Your task to perform on an android device: uninstall "Facebook" Image 0: 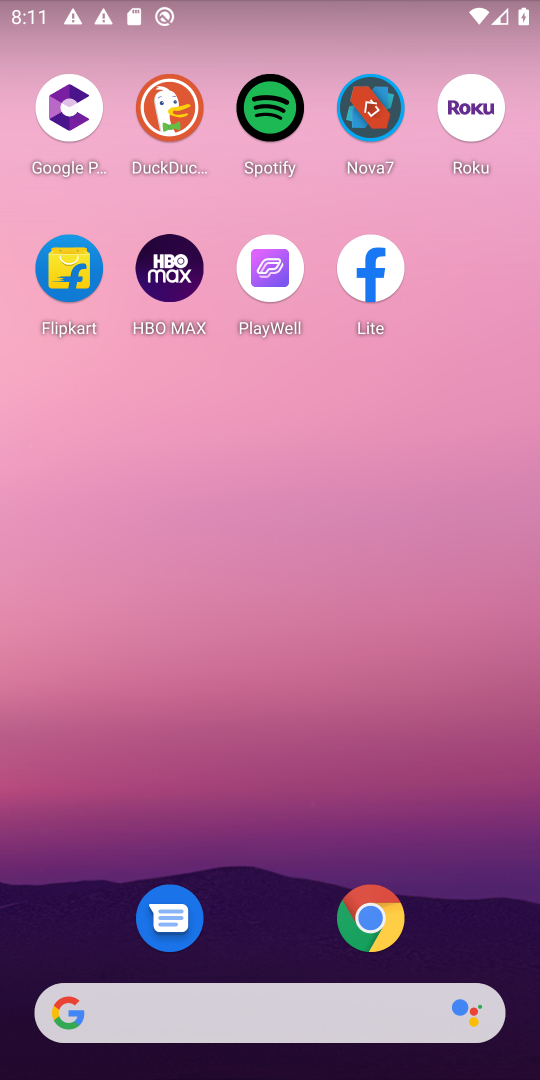
Step 0: press home button
Your task to perform on an android device: uninstall "Facebook" Image 1: 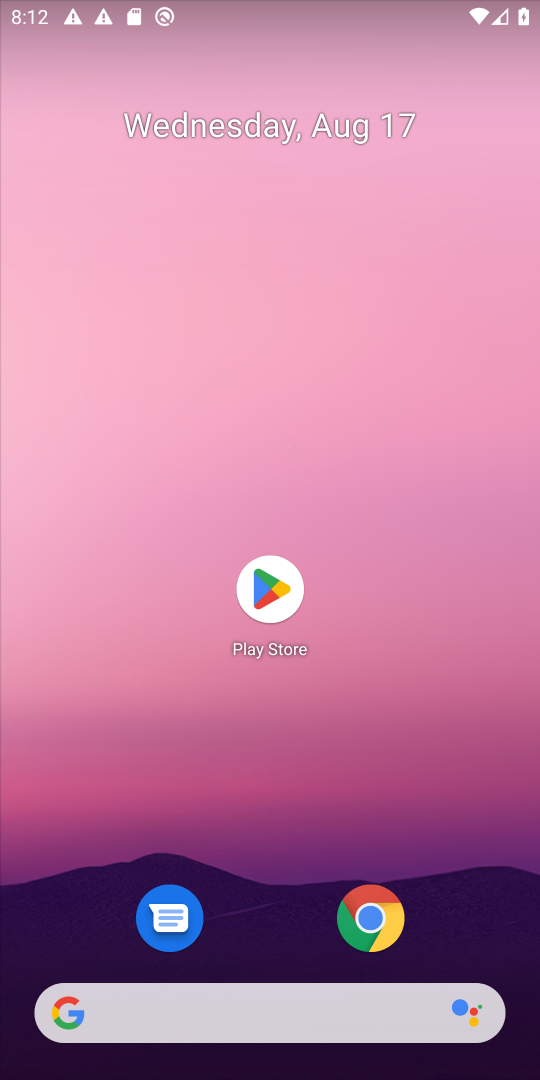
Step 1: click (270, 577)
Your task to perform on an android device: uninstall "Facebook" Image 2: 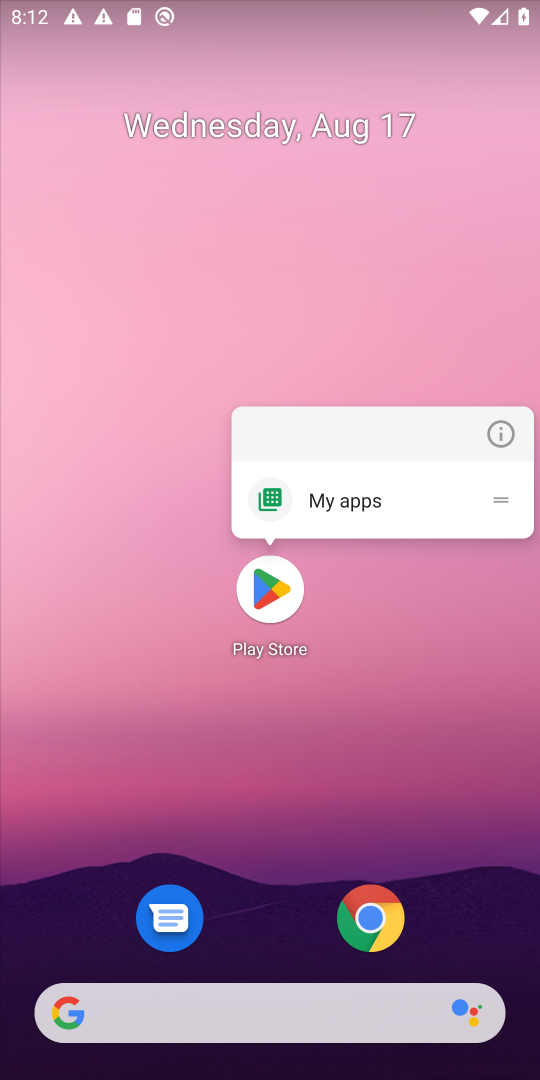
Step 2: click (270, 588)
Your task to perform on an android device: uninstall "Facebook" Image 3: 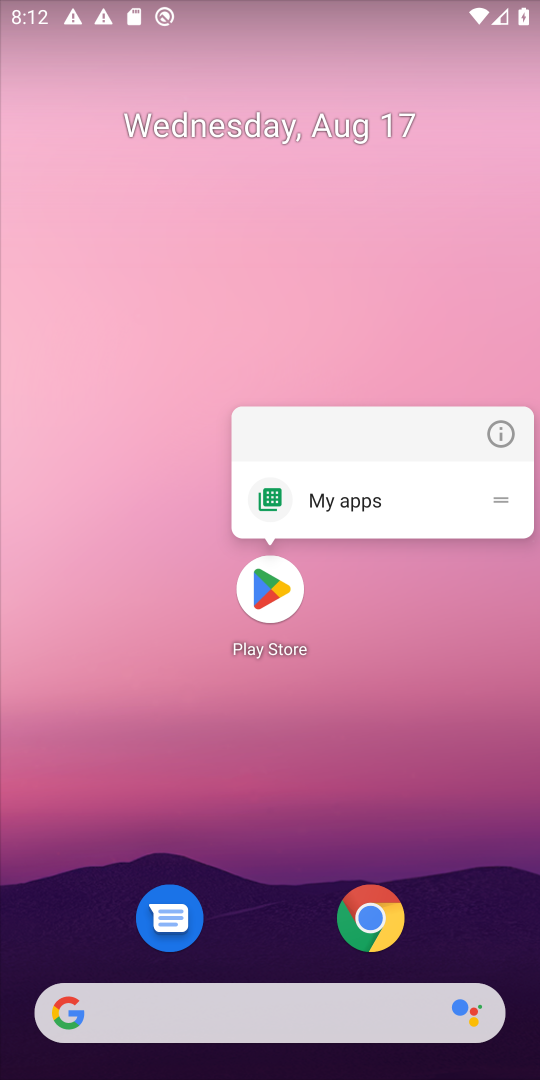
Step 3: click (270, 593)
Your task to perform on an android device: uninstall "Facebook" Image 4: 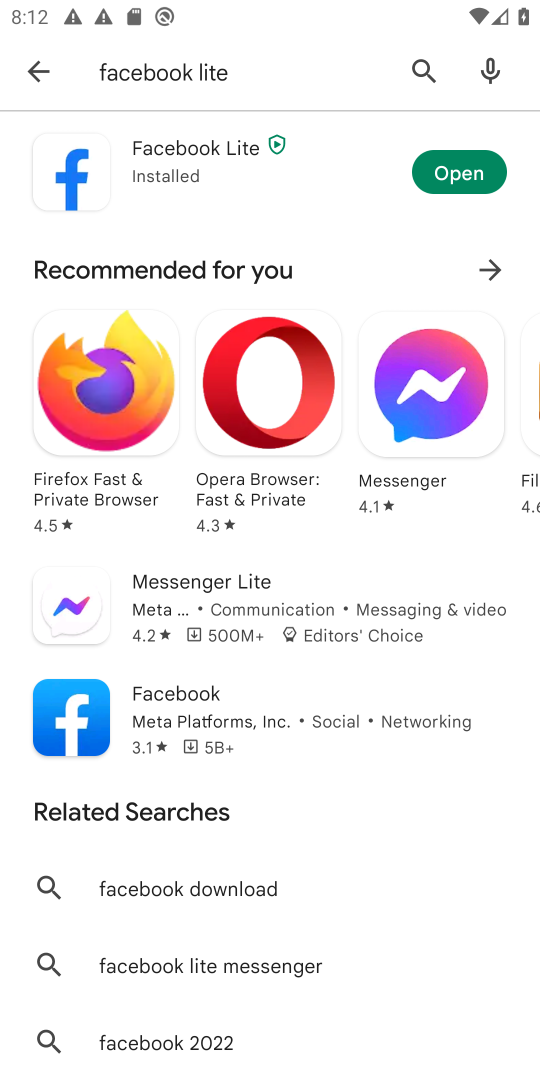
Step 4: click (421, 71)
Your task to perform on an android device: uninstall "Facebook" Image 5: 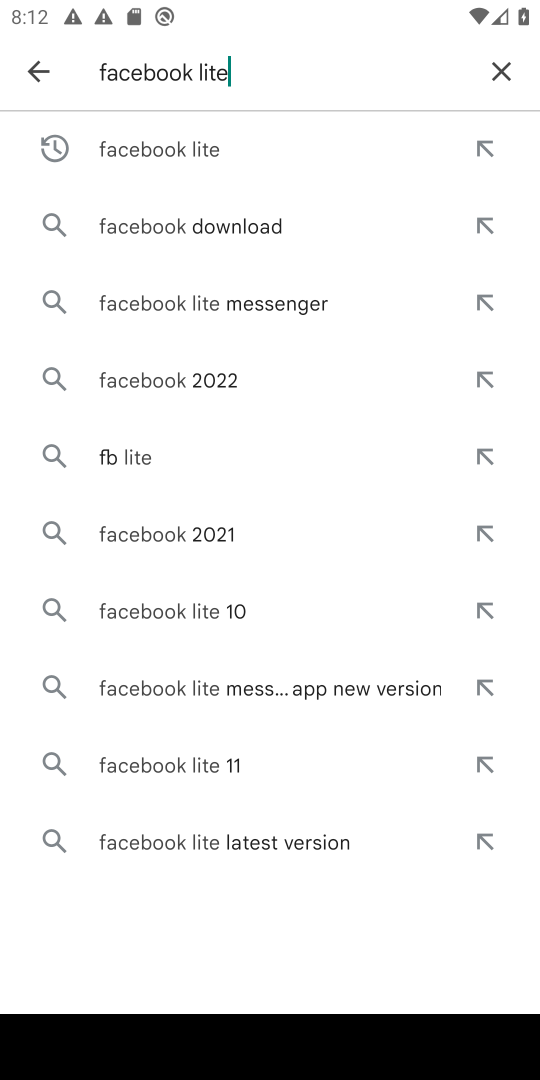
Step 5: click (489, 62)
Your task to perform on an android device: uninstall "Facebook" Image 6: 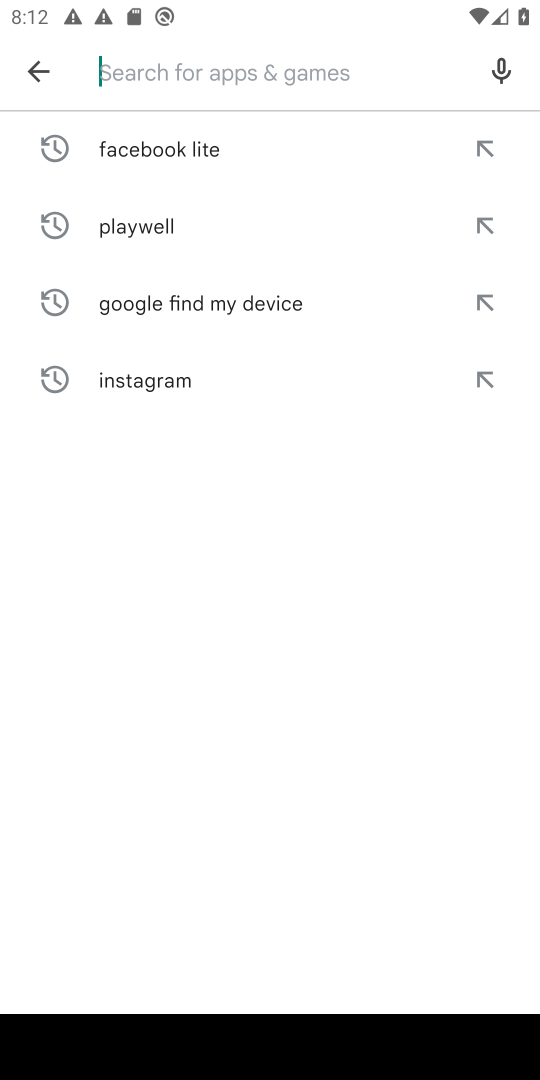
Step 6: type "Facebook"
Your task to perform on an android device: uninstall "Facebook" Image 7: 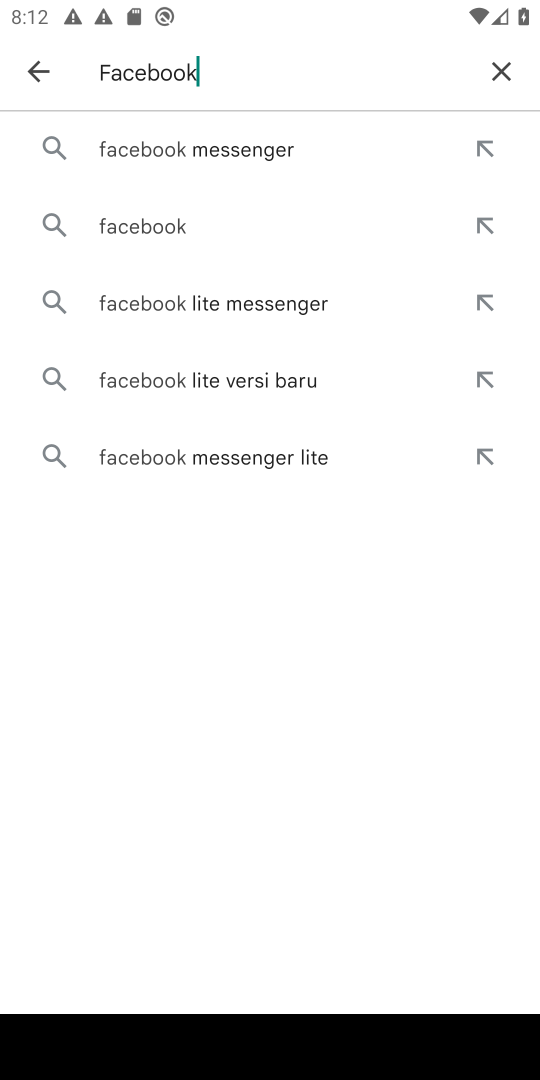
Step 7: click (171, 219)
Your task to perform on an android device: uninstall "Facebook" Image 8: 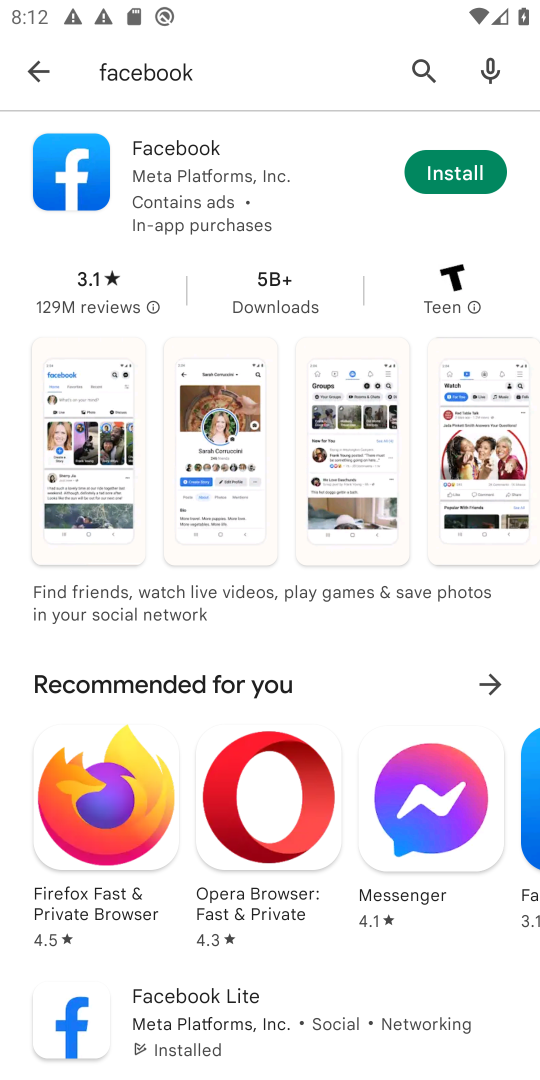
Step 8: task complete